Your task to perform on an android device: Go to display settings Image 0: 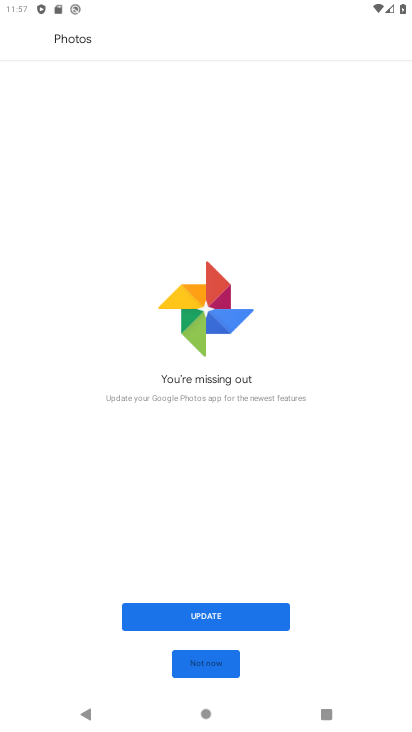
Step 0: press home button
Your task to perform on an android device: Go to display settings Image 1: 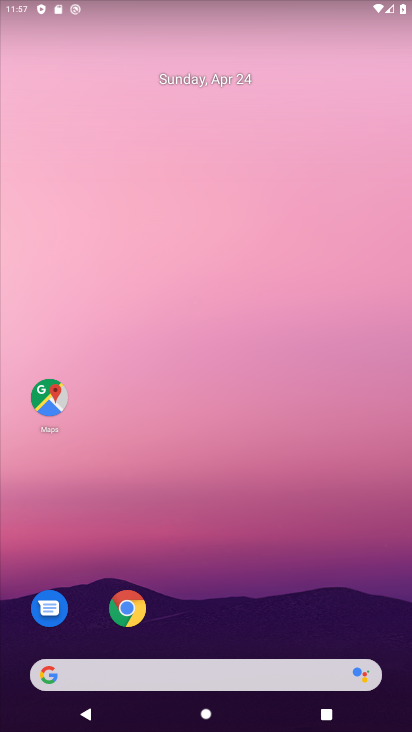
Step 1: drag from (232, 654) to (232, 131)
Your task to perform on an android device: Go to display settings Image 2: 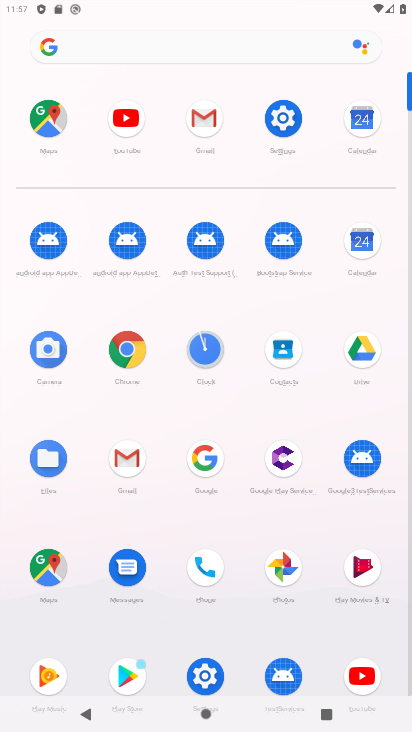
Step 2: click (293, 110)
Your task to perform on an android device: Go to display settings Image 3: 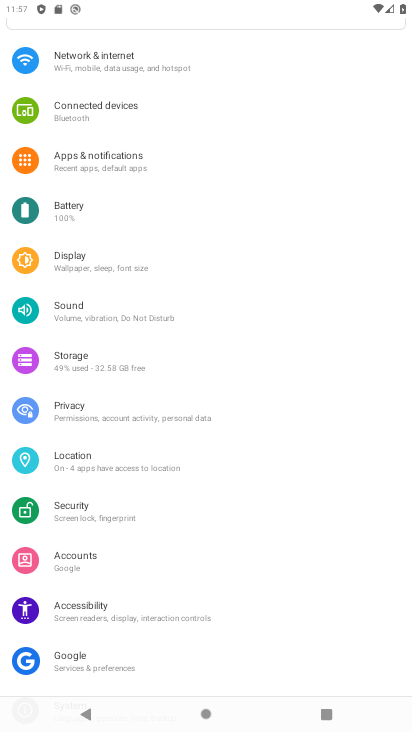
Step 3: click (74, 262)
Your task to perform on an android device: Go to display settings Image 4: 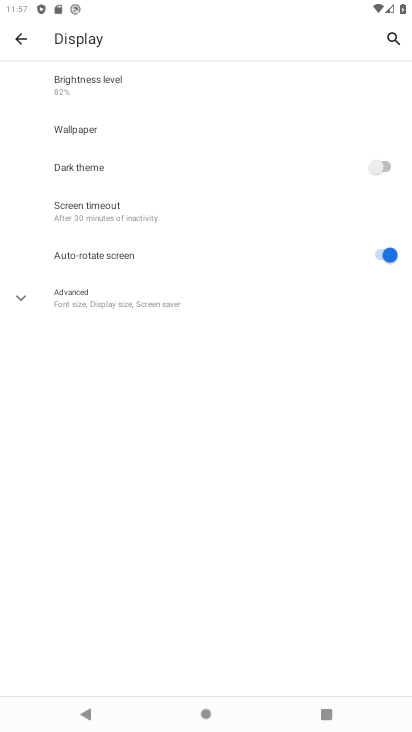
Step 4: task complete